Your task to perform on an android device: Is it going to rain this weekend? Image 0: 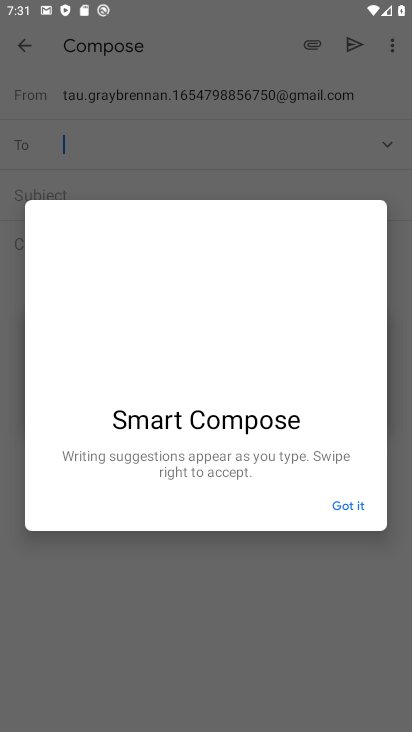
Step 0: press home button
Your task to perform on an android device: Is it going to rain this weekend? Image 1: 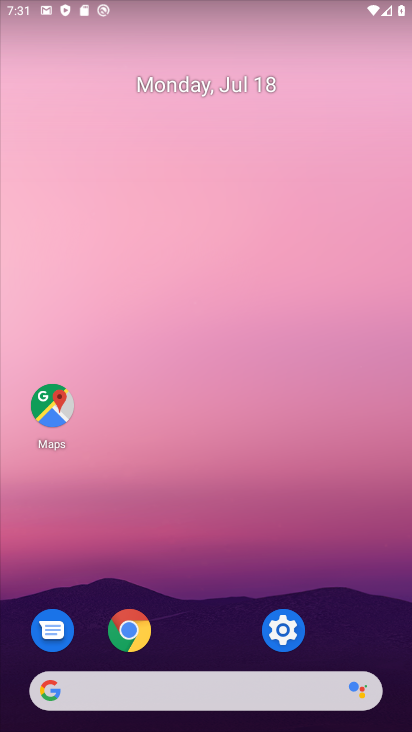
Step 1: click (211, 687)
Your task to perform on an android device: Is it going to rain this weekend? Image 2: 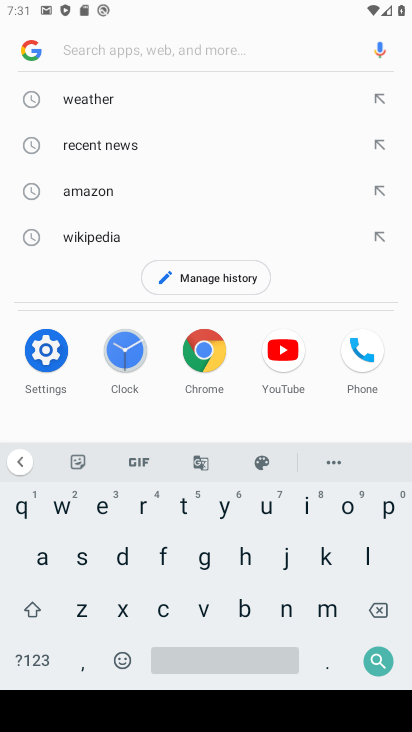
Step 2: click (134, 501)
Your task to perform on an android device: Is it going to rain this weekend? Image 3: 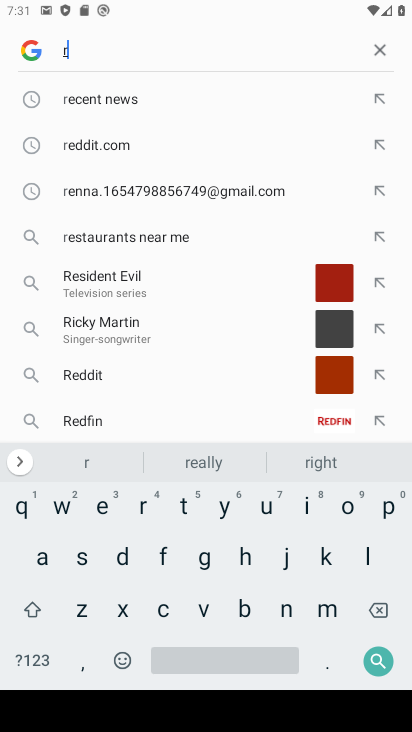
Step 3: click (34, 554)
Your task to perform on an android device: Is it going to rain this weekend? Image 4: 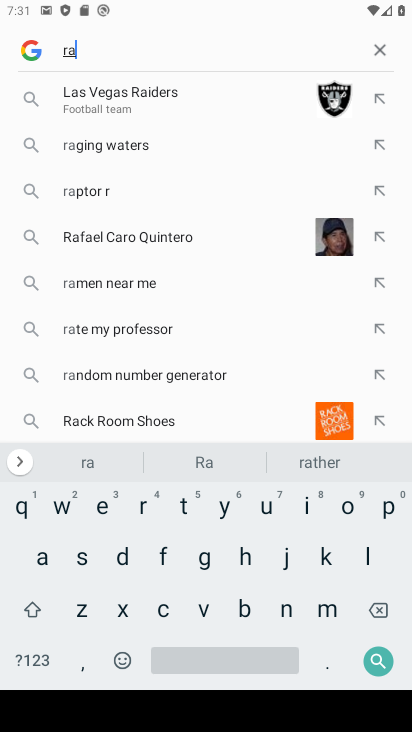
Step 4: click (305, 499)
Your task to perform on an android device: Is it going to rain this weekend? Image 5: 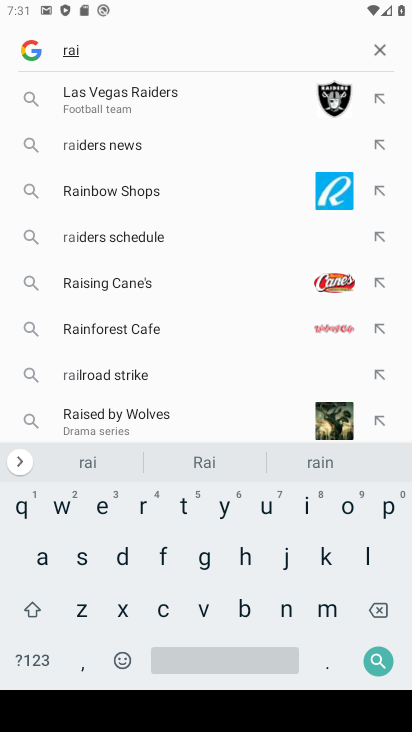
Step 5: click (288, 601)
Your task to perform on an android device: Is it going to rain this weekend? Image 6: 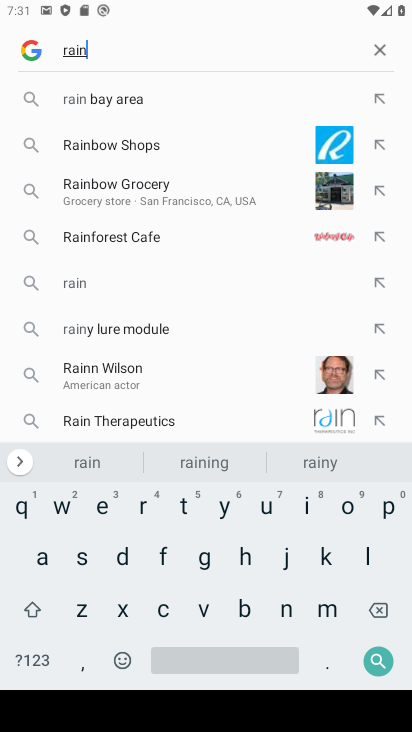
Step 6: click (208, 661)
Your task to perform on an android device: Is it going to rain this weekend? Image 7: 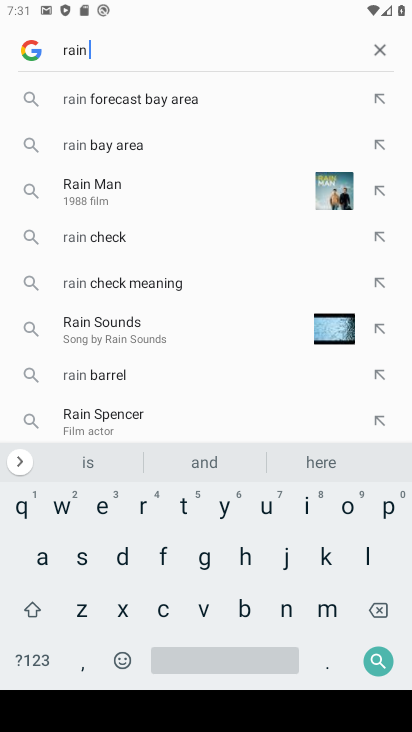
Step 7: click (183, 507)
Your task to perform on an android device: Is it going to rain this weekend? Image 8: 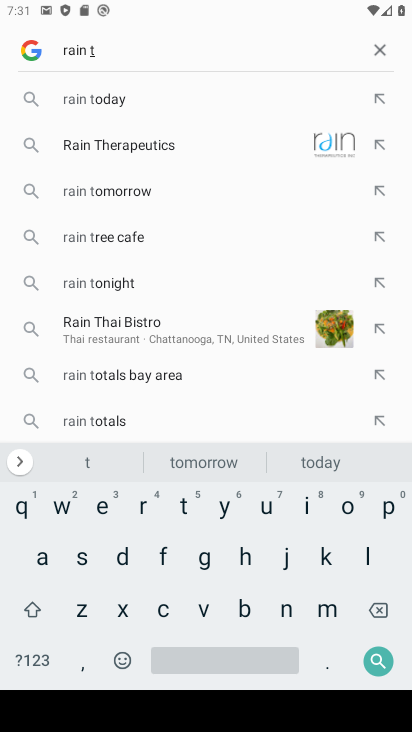
Step 8: click (251, 551)
Your task to perform on an android device: Is it going to rain this weekend? Image 9: 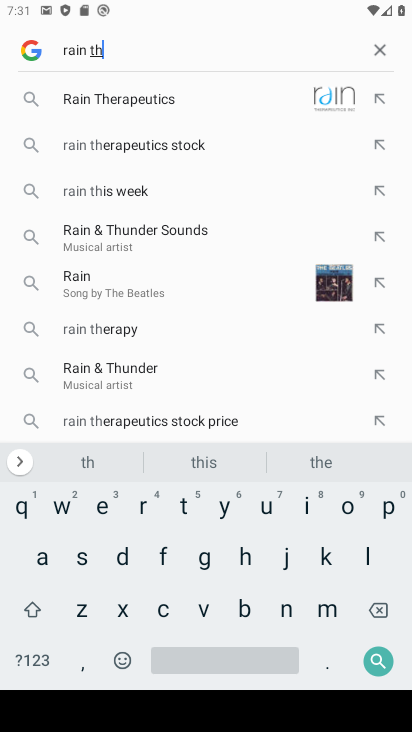
Step 9: click (299, 501)
Your task to perform on an android device: Is it going to rain this weekend? Image 10: 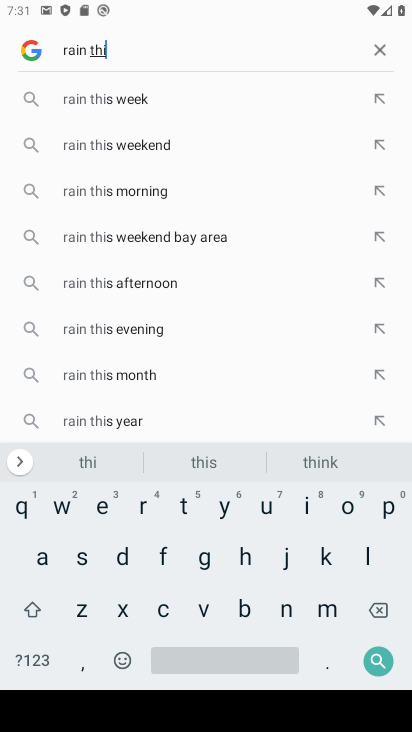
Step 10: click (82, 557)
Your task to perform on an android device: Is it going to rain this weekend? Image 11: 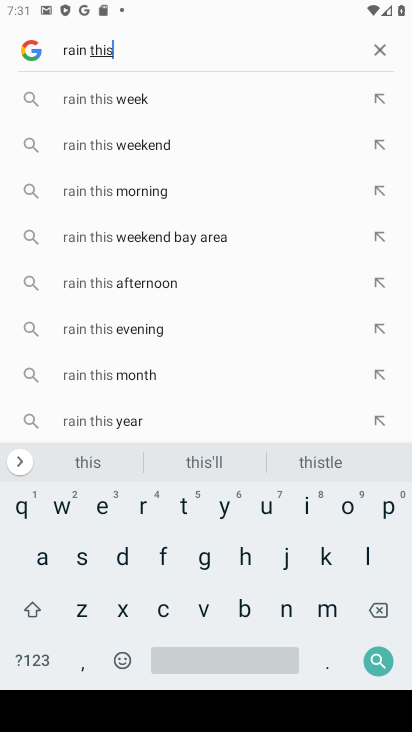
Step 11: click (136, 143)
Your task to perform on an android device: Is it going to rain this weekend? Image 12: 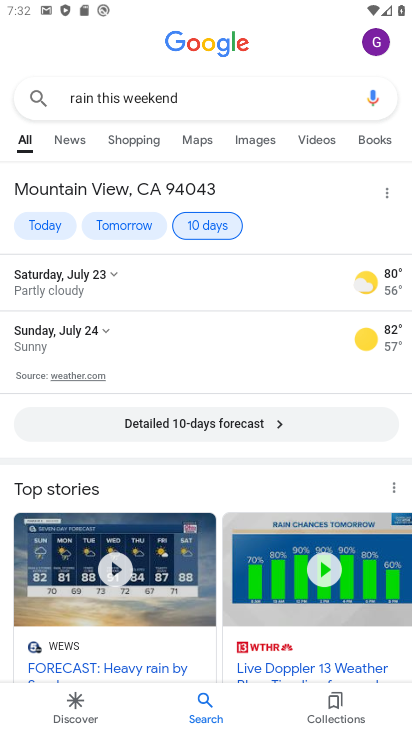
Step 12: task complete